Your task to perform on an android device: Search for Mexican restaurants on Maps Image 0: 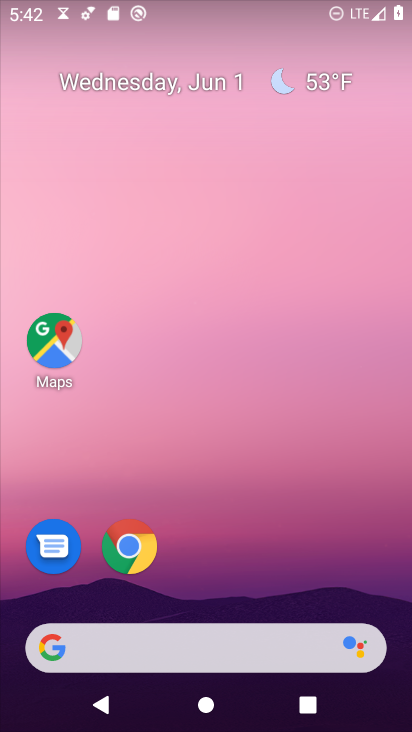
Step 0: drag from (252, 526) to (211, 18)
Your task to perform on an android device: Search for Mexican restaurants on Maps Image 1: 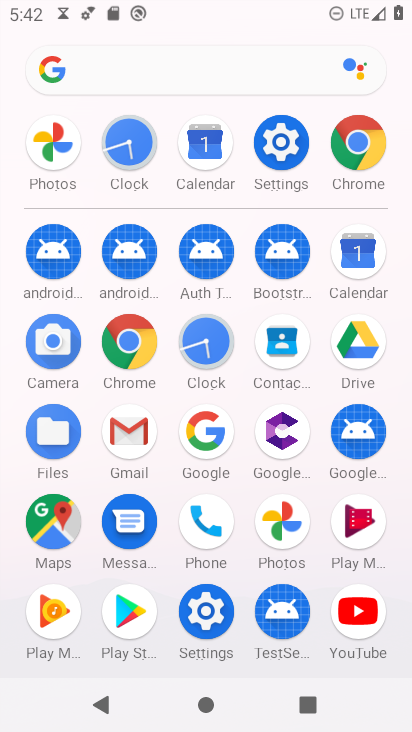
Step 1: drag from (5, 526) to (3, 240)
Your task to perform on an android device: Search for Mexican restaurants on Maps Image 2: 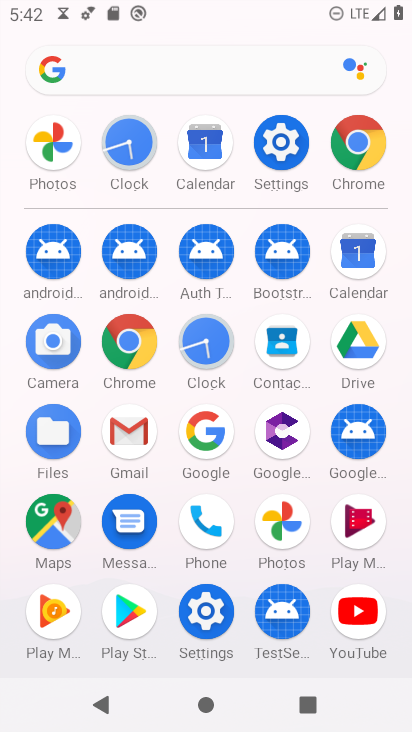
Step 2: click (52, 519)
Your task to perform on an android device: Search for Mexican restaurants on Maps Image 3: 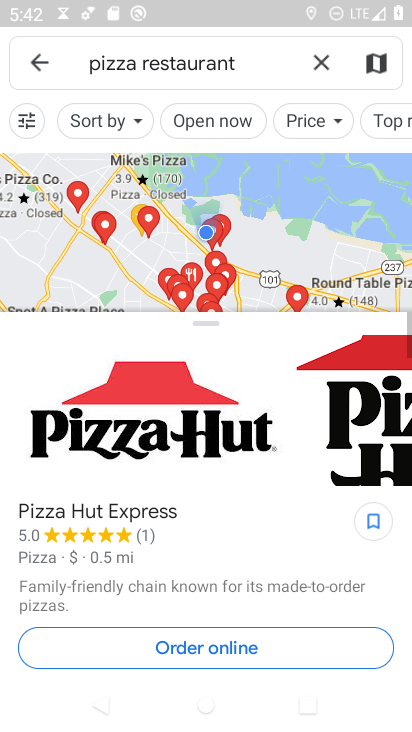
Step 3: click (312, 62)
Your task to perform on an android device: Search for Mexican restaurants on Maps Image 4: 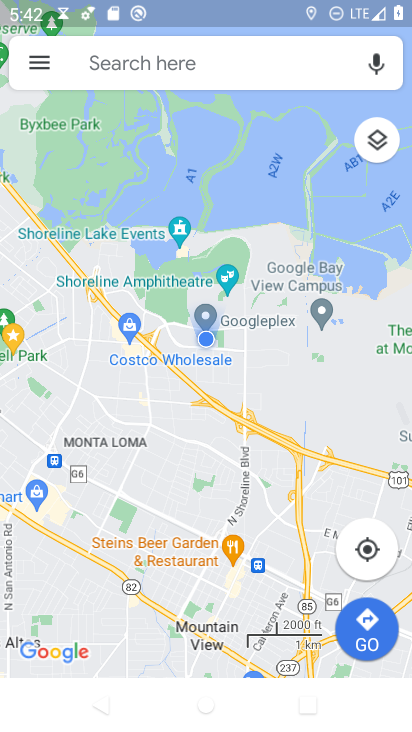
Step 4: click (237, 72)
Your task to perform on an android device: Search for Mexican restaurants on Maps Image 5: 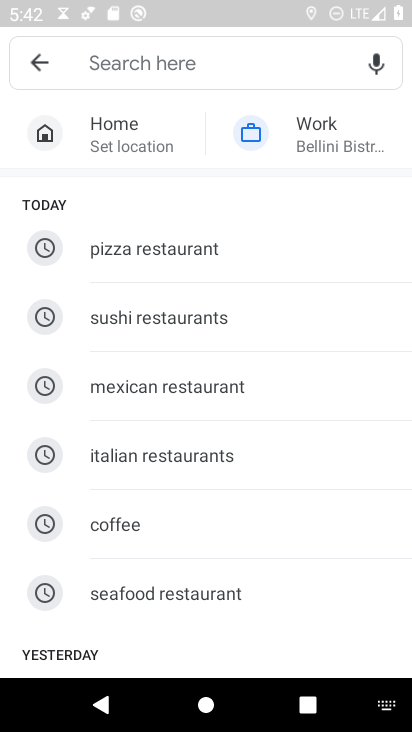
Step 5: click (214, 390)
Your task to perform on an android device: Search for Mexican restaurants on Maps Image 6: 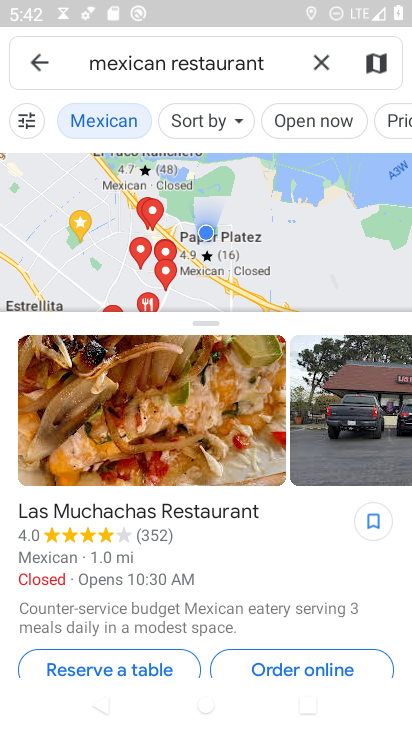
Step 6: task complete